Your task to perform on an android device: move a message to another label in the gmail app Image 0: 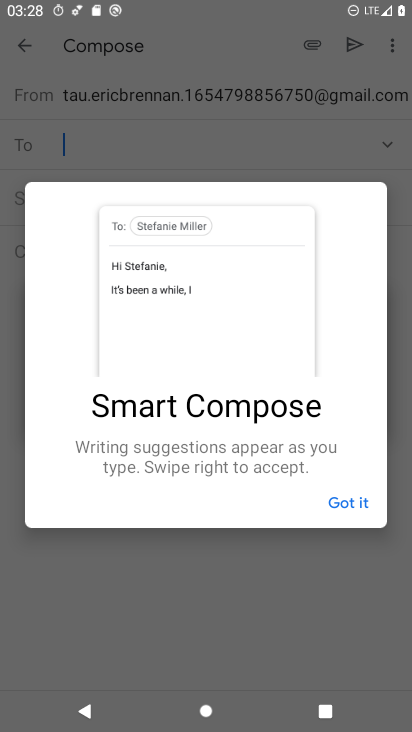
Step 0: press home button
Your task to perform on an android device: move a message to another label in the gmail app Image 1: 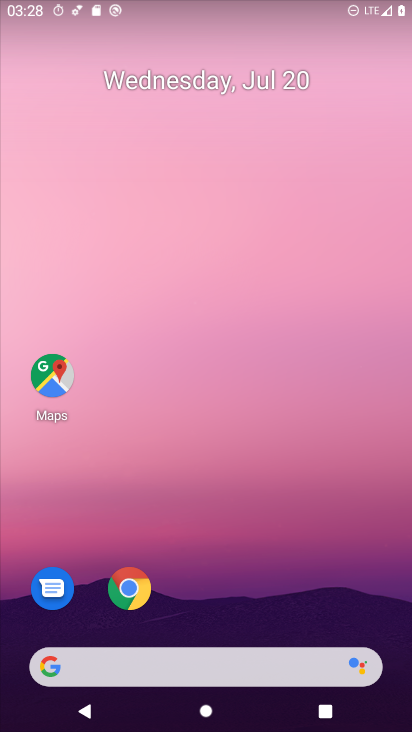
Step 1: drag from (231, 632) to (187, 85)
Your task to perform on an android device: move a message to another label in the gmail app Image 2: 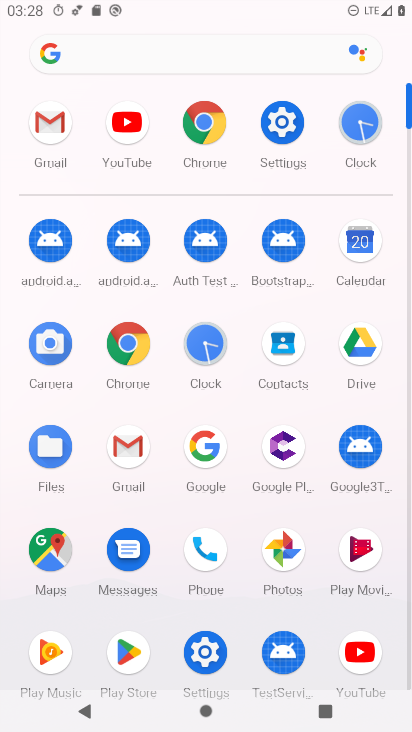
Step 2: click (126, 455)
Your task to perform on an android device: move a message to another label in the gmail app Image 3: 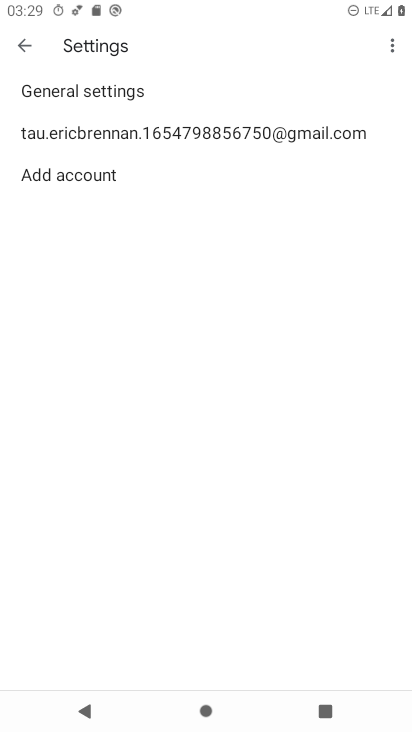
Step 3: click (22, 52)
Your task to perform on an android device: move a message to another label in the gmail app Image 4: 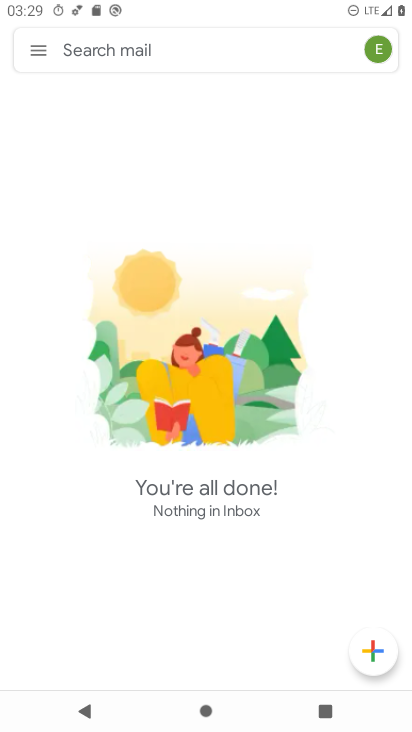
Step 4: task complete